Your task to perform on an android device: Do I have any events today? Image 0: 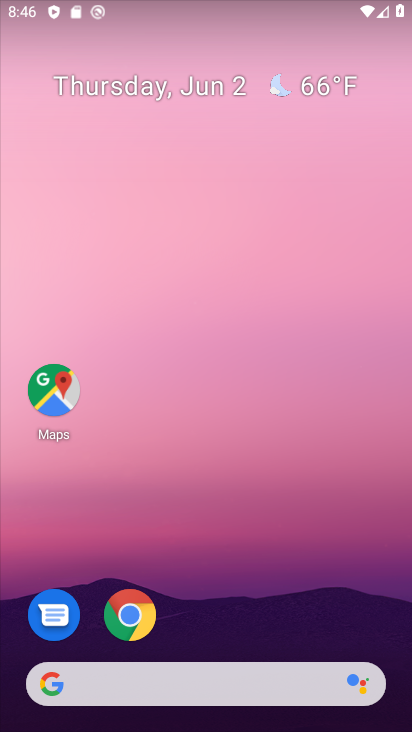
Step 0: drag from (230, 623) to (197, 181)
Your task to perform on an android device: Do I have any events today? Image 1: 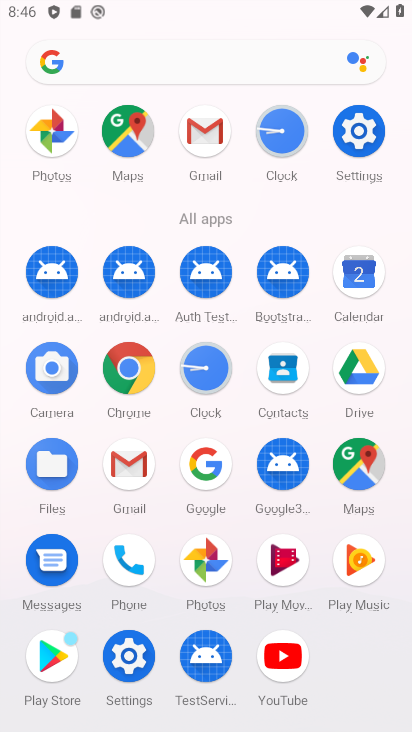
Step 1: click (358, 290)
Your task to perform on an android device: Do I have any events today? Image 2: 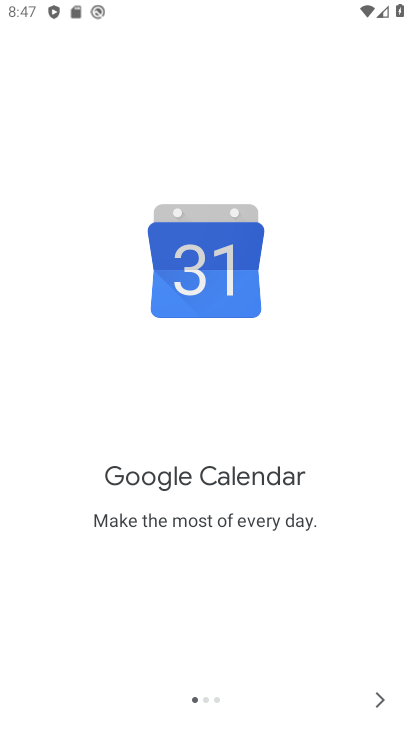
Step 2: click (374, 697)
Your task to perform on an android device: Do I have any events today? Image 3: 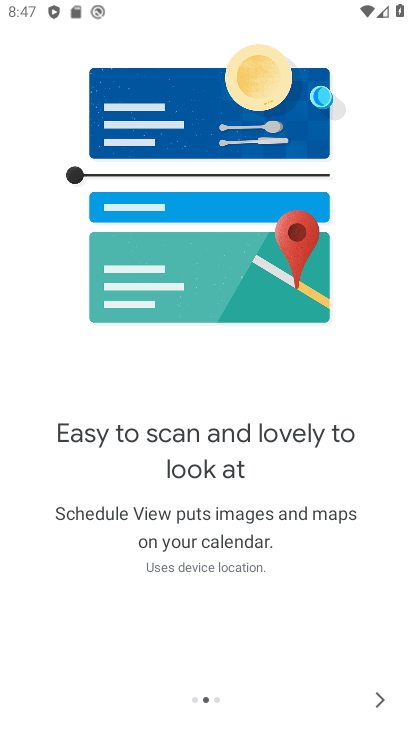
Step 3: click (374, 697)
Your task to perform on an android device: Do I have any events today? Image 4: 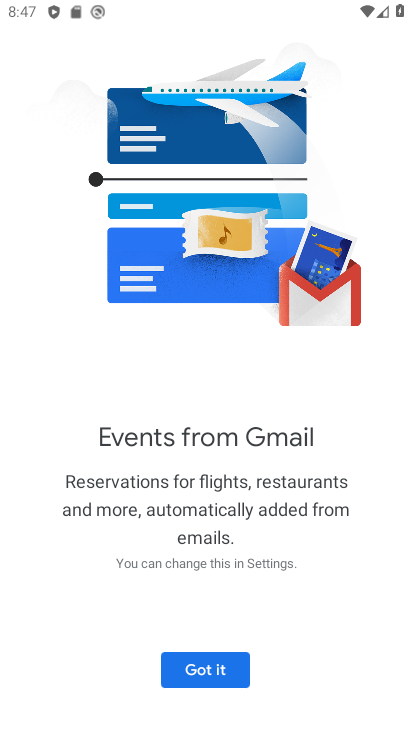
Step 4: click (205, 676)
Your task to perform on an android device: Do I have any events today? Image 5: 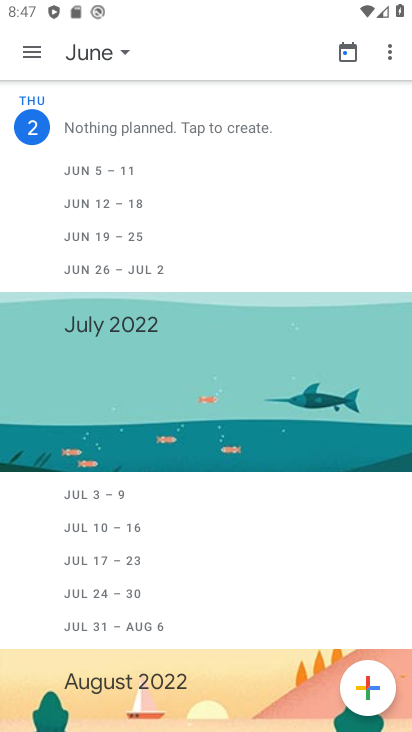
Step 5: click (37, 55)
Your task to perform on an android device: Do I have any events today? Image 6: 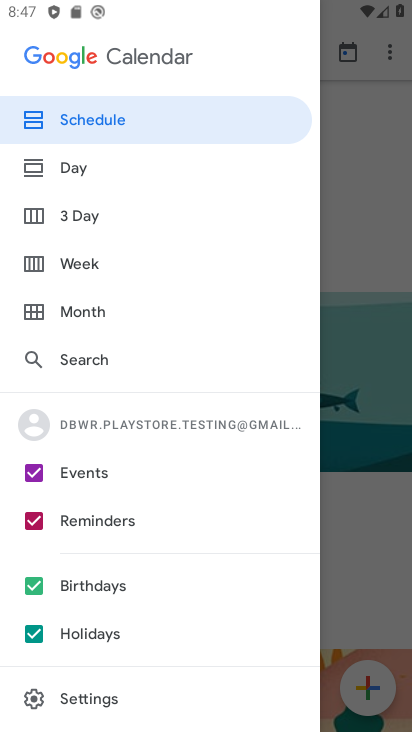
Step 6: click (83, 160)
Your task to perform on an android device: Do I have any events today? Image 7: 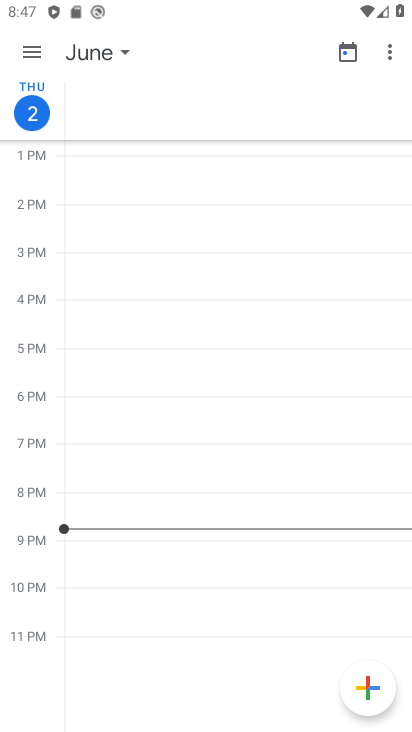
Step 7: click (30, 52)
Your task to perform on an android device: Do I have any events today? Image 8: 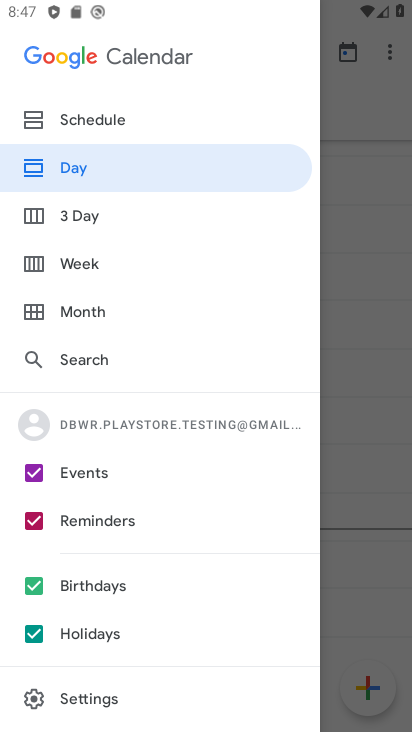
Step 8: click (28, 635)
Your task to perform on an android device: Do I have any events today? Image 9: 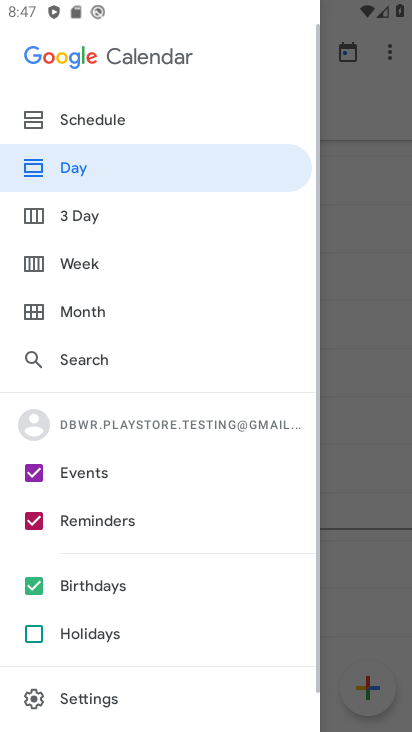
Step 9: click (38, 583)
Your task to perform on an android device: Do I have any events today? Image 10: 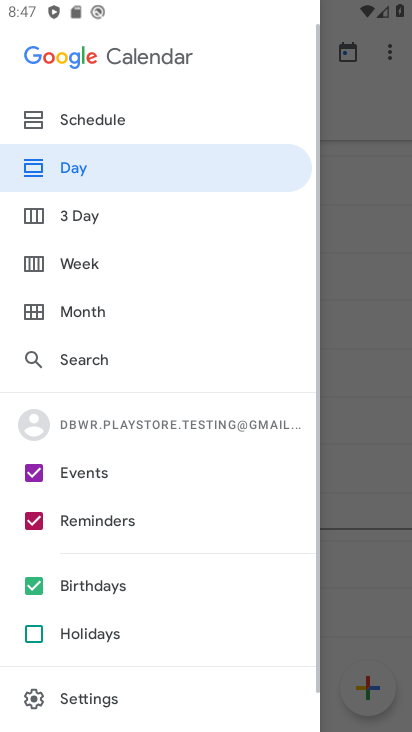
Step 10: click (34, 521)
Your task to perform on an android device: Do I have any events today? Image 11: 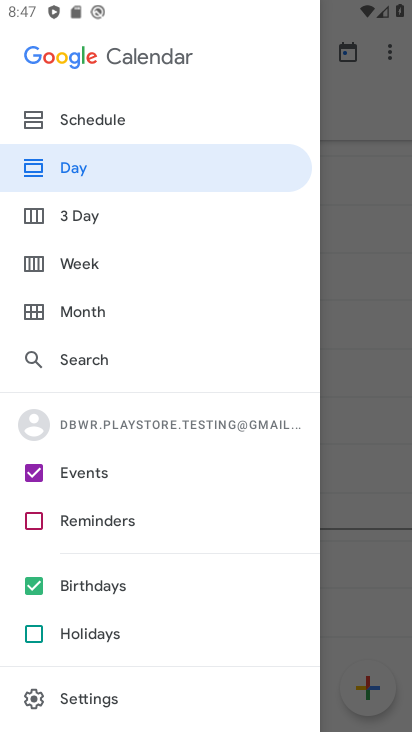
Step 11: click (34, 582)
Your task to perform on an android device: Do I have any events today? Image 12: 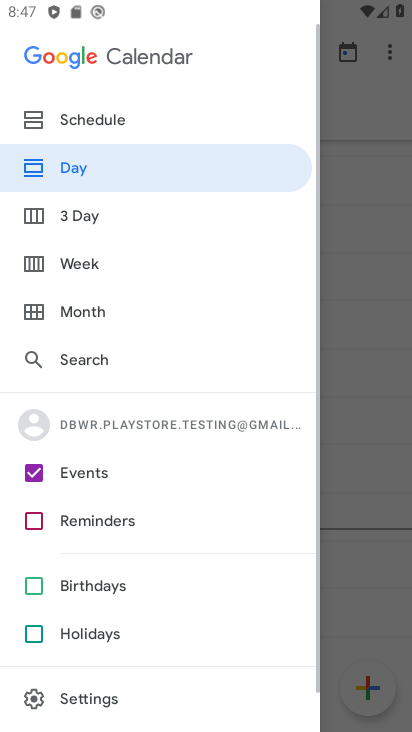
Step 12: click (82, 158)
Your task to perform on an android device: Do I have any events today? Image 13: 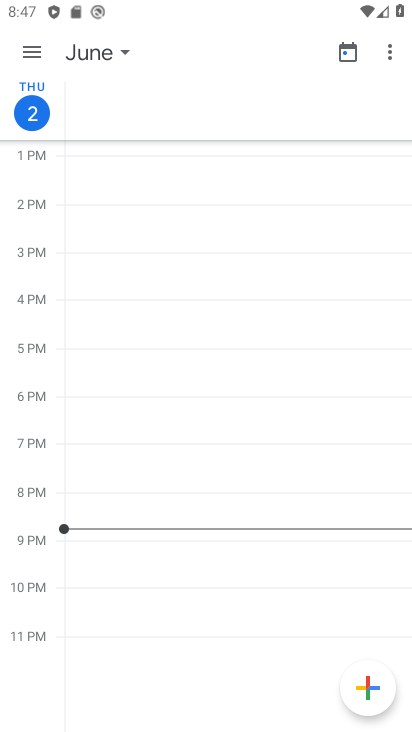
Step 13: task complete